Your task to perform on an android device: uninstall "Gmail" Image 0: 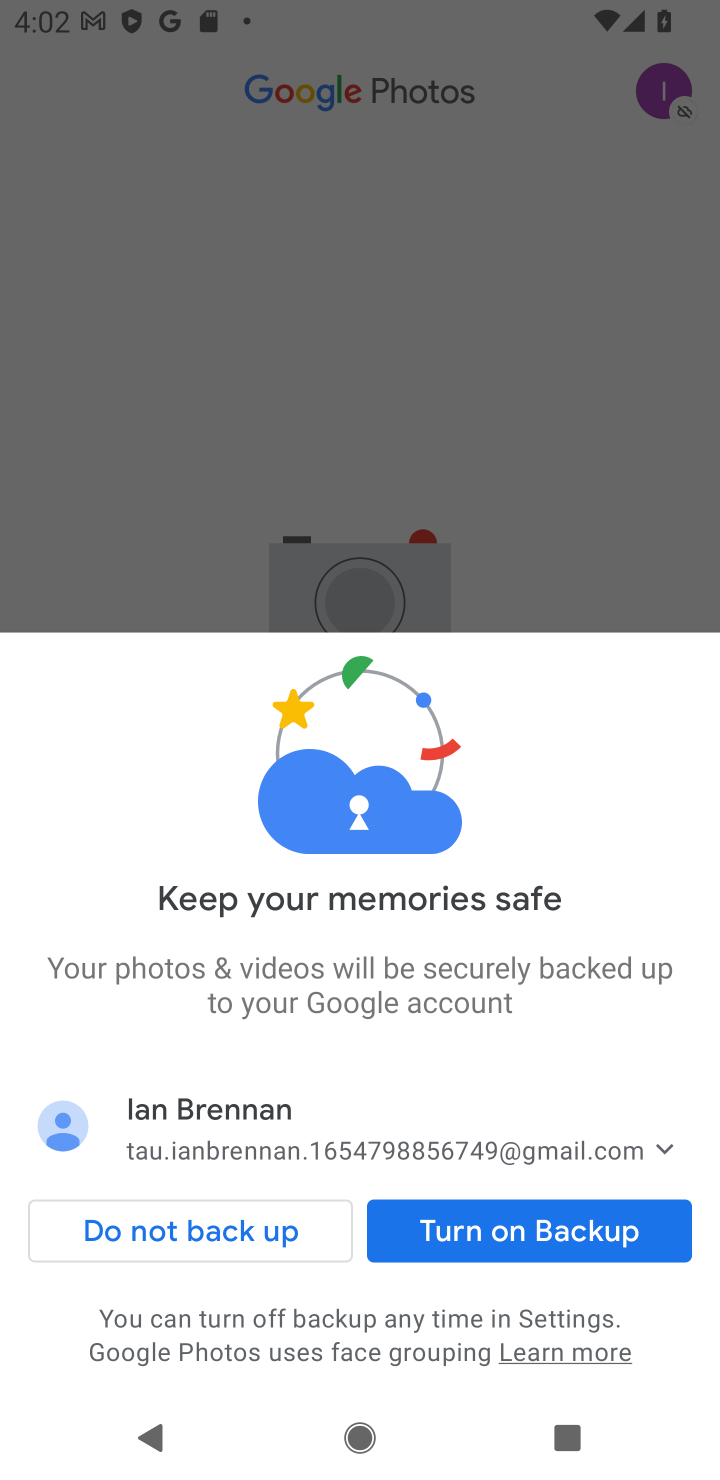
Step 0: press home button
Your task to perform on an android device: uninstall "Gmail" Image 1: 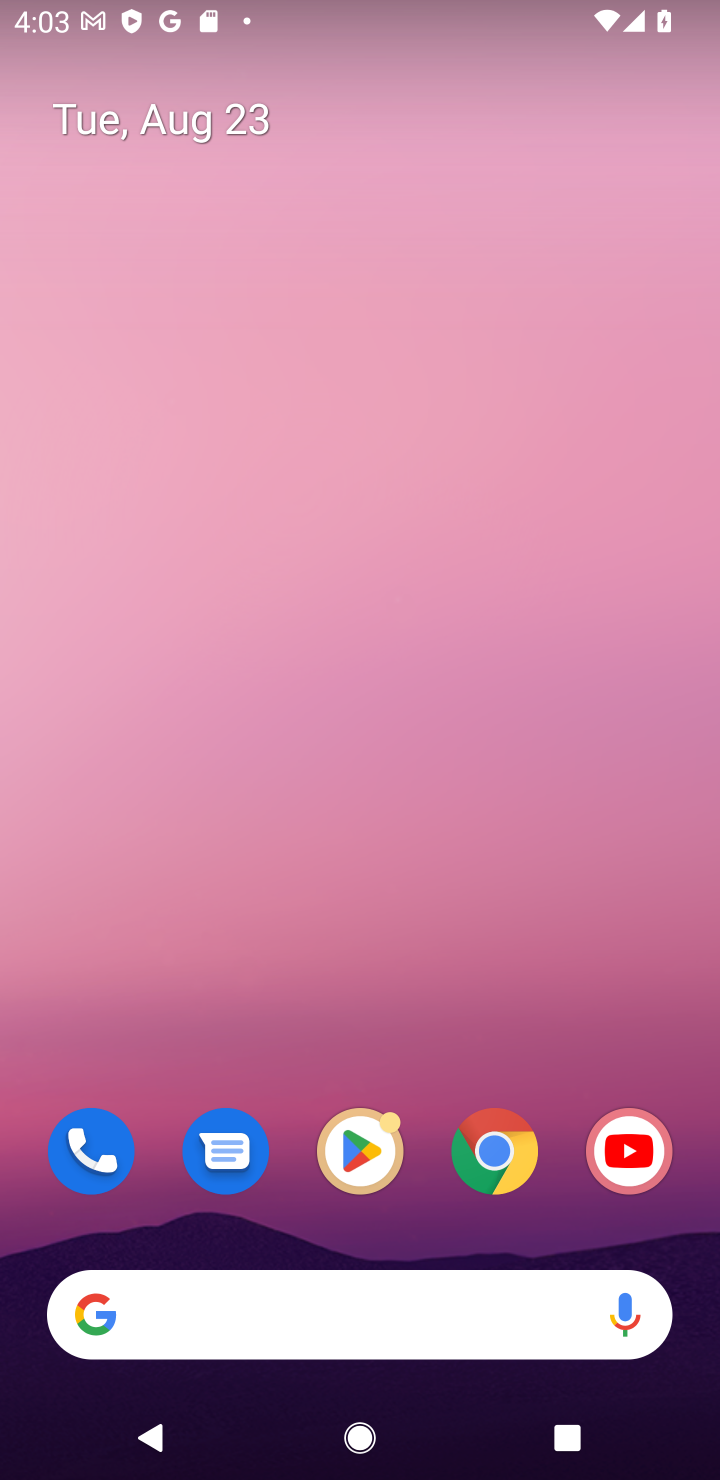
Step 1: click (355, 1146)
Your task to perform on an android device: uninstall "Gmail" Image 2: 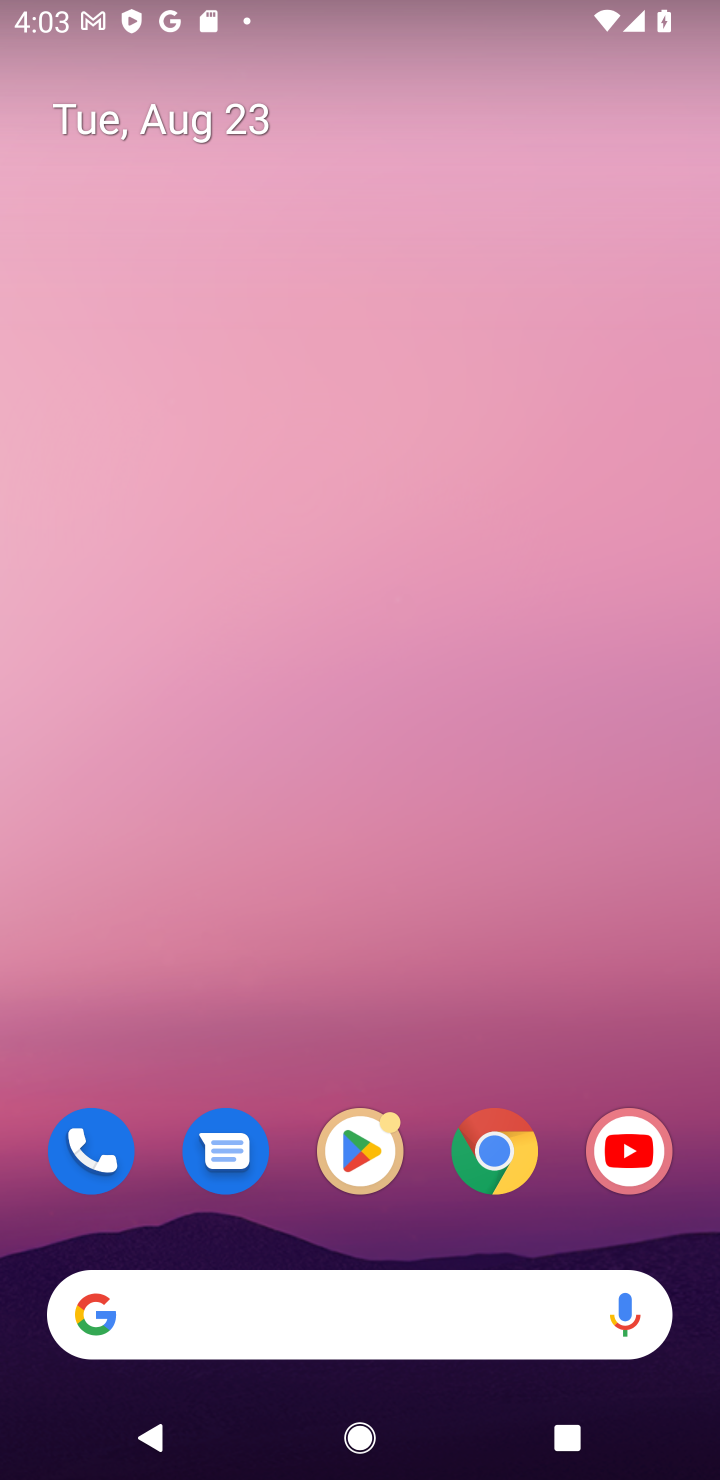
Step 2: click (354, 1141)
Your task to perform on an android device: uninstall "Gmail" Image 3: 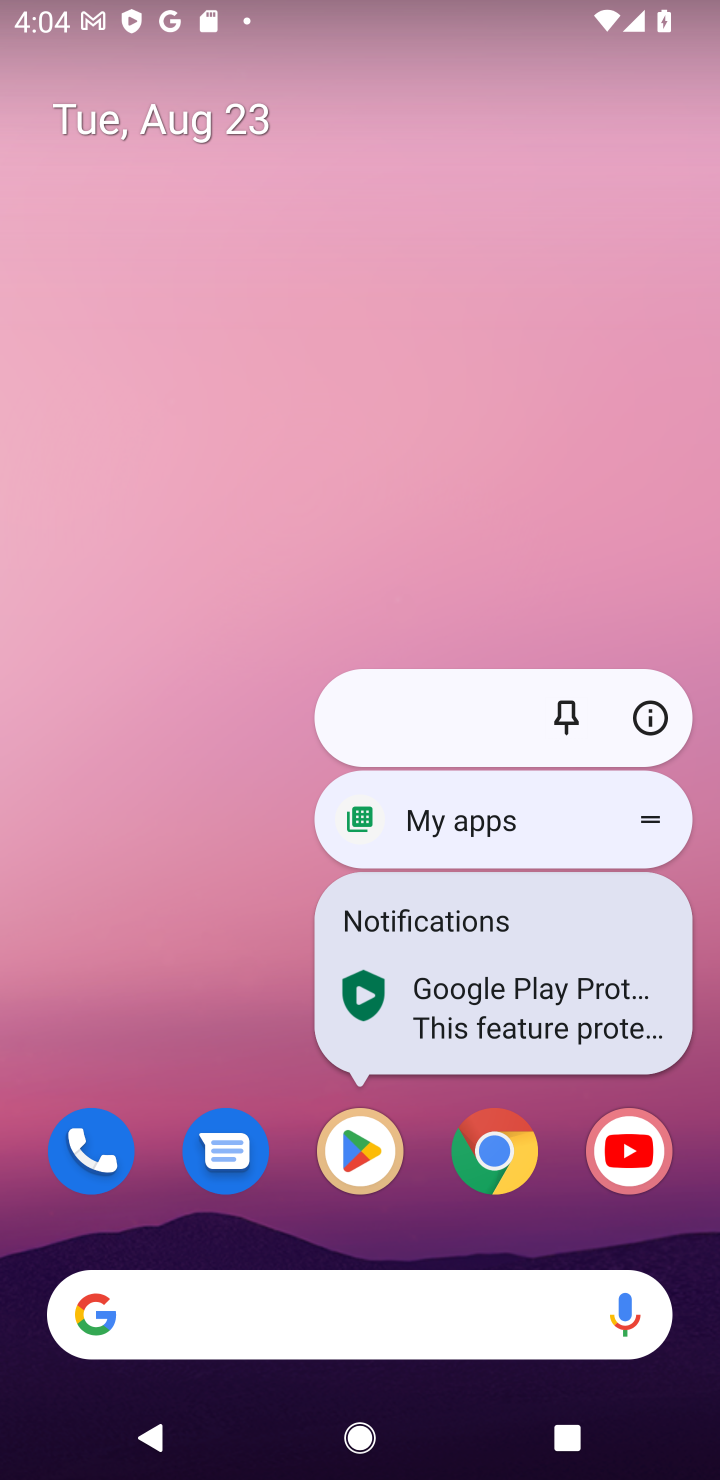
Step 3: click (355, 1136)
Your task to perform on an android device: uninstall "Gmail" Image 4: 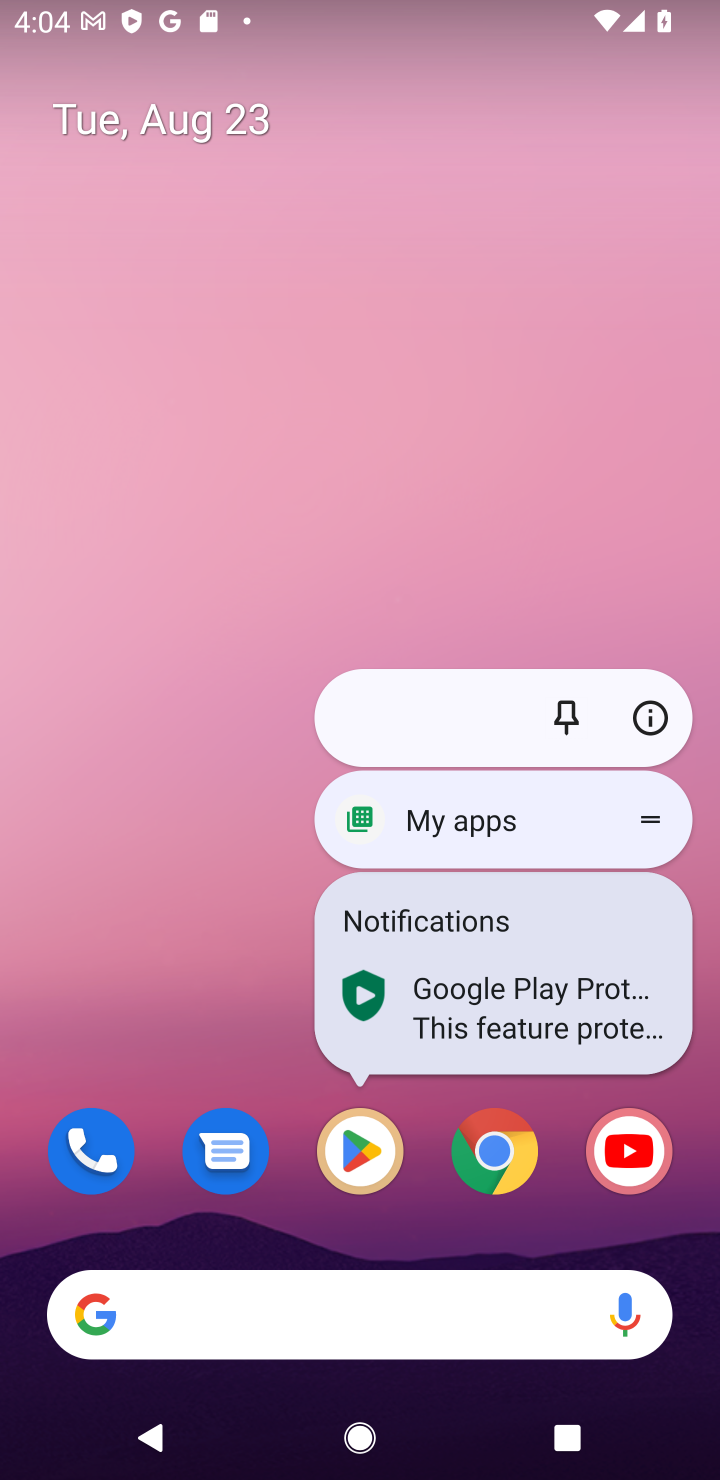
Step 4: click (348, 1149)
Your task to perform on an android device: uninstall "Gmail" Image 5: 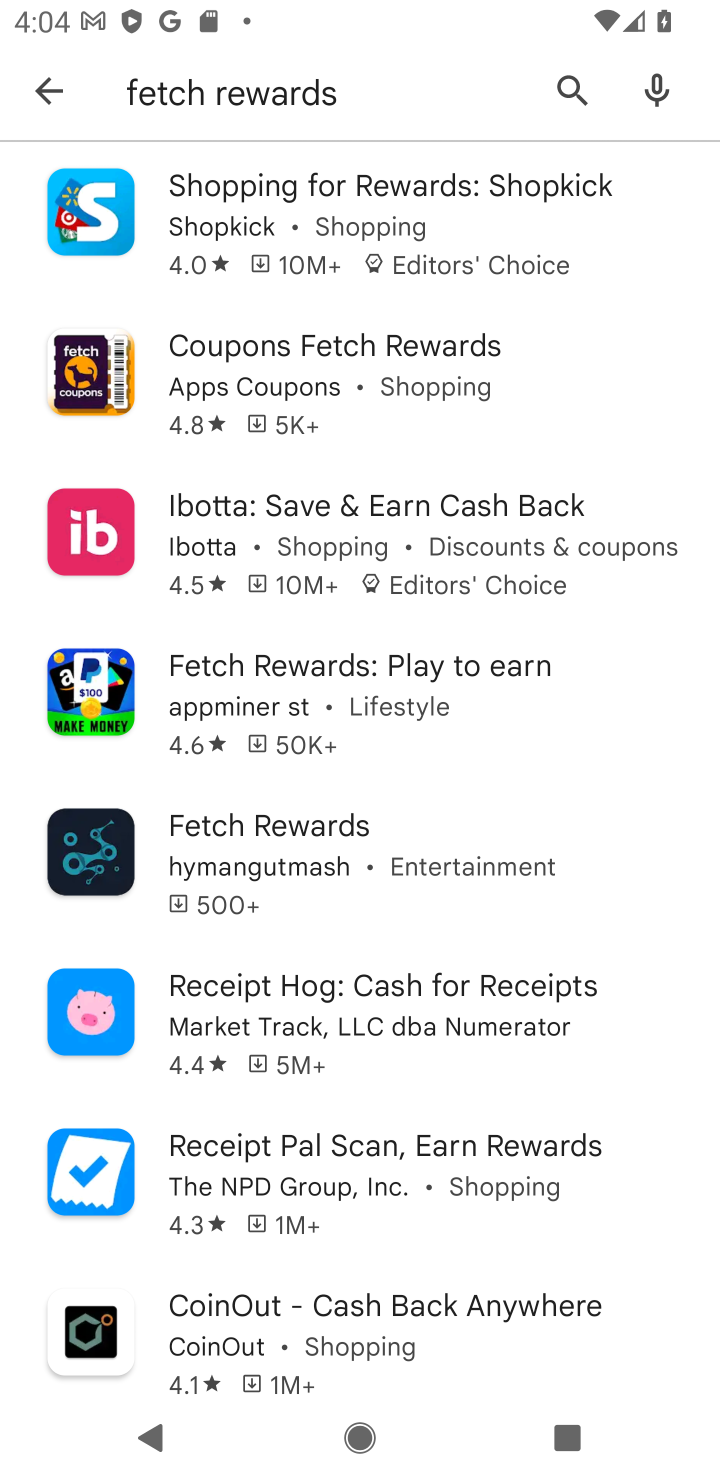
Step 5: click (558, 88)
Your task to perform on an android device: uninstall "Gmail" Image 6: 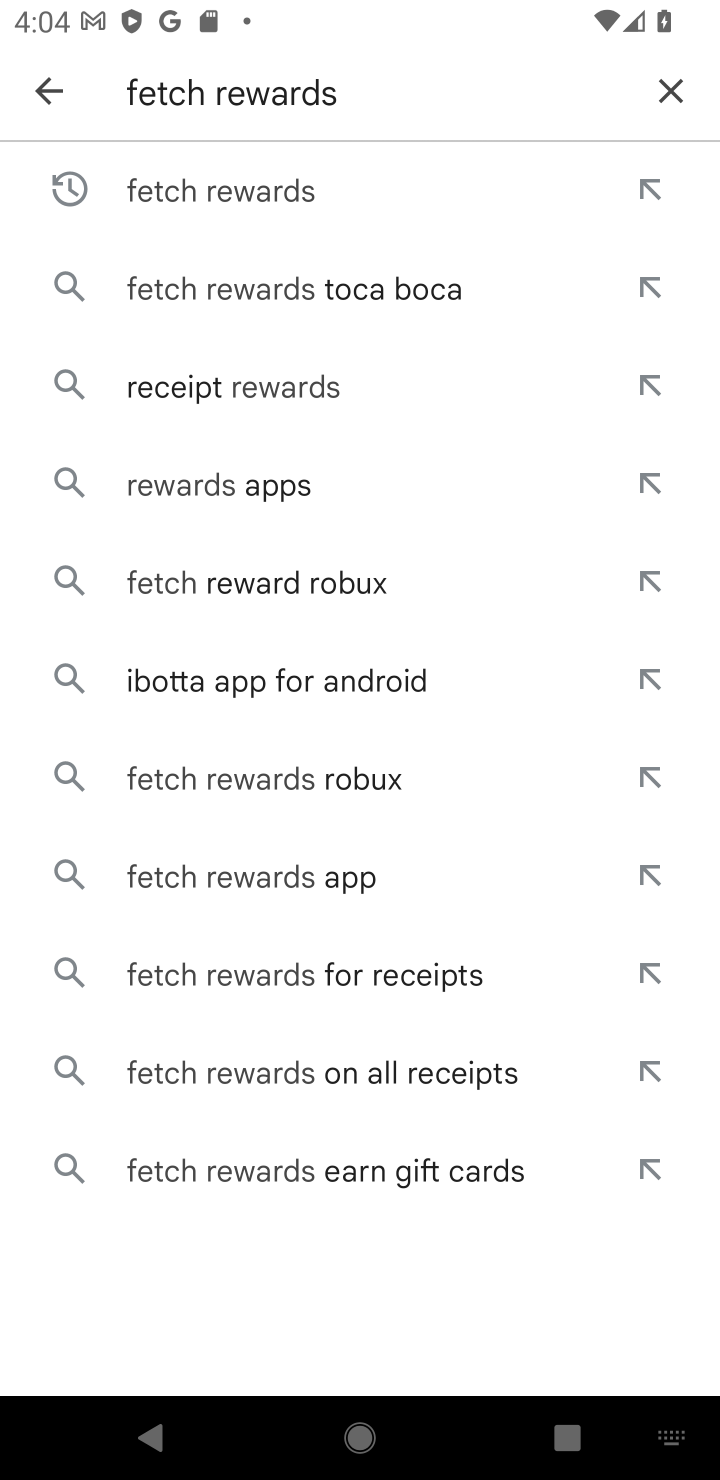
Step 6: click (670, 82)
Your task to perform on an android device: uninstall "Gmail" Image 7: 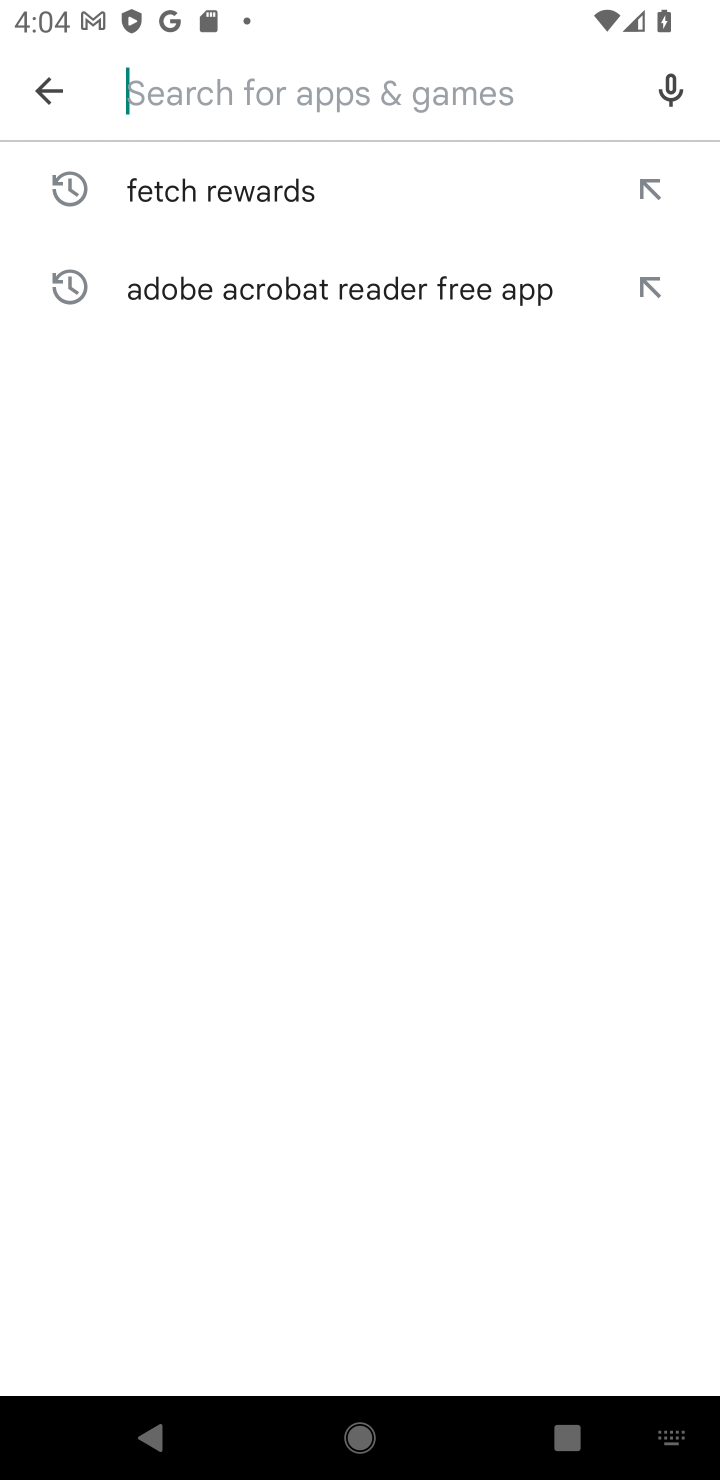
Step 7: type "Gmail"
Your task to perform on an android device: uninstall "Gmail" Image 8: 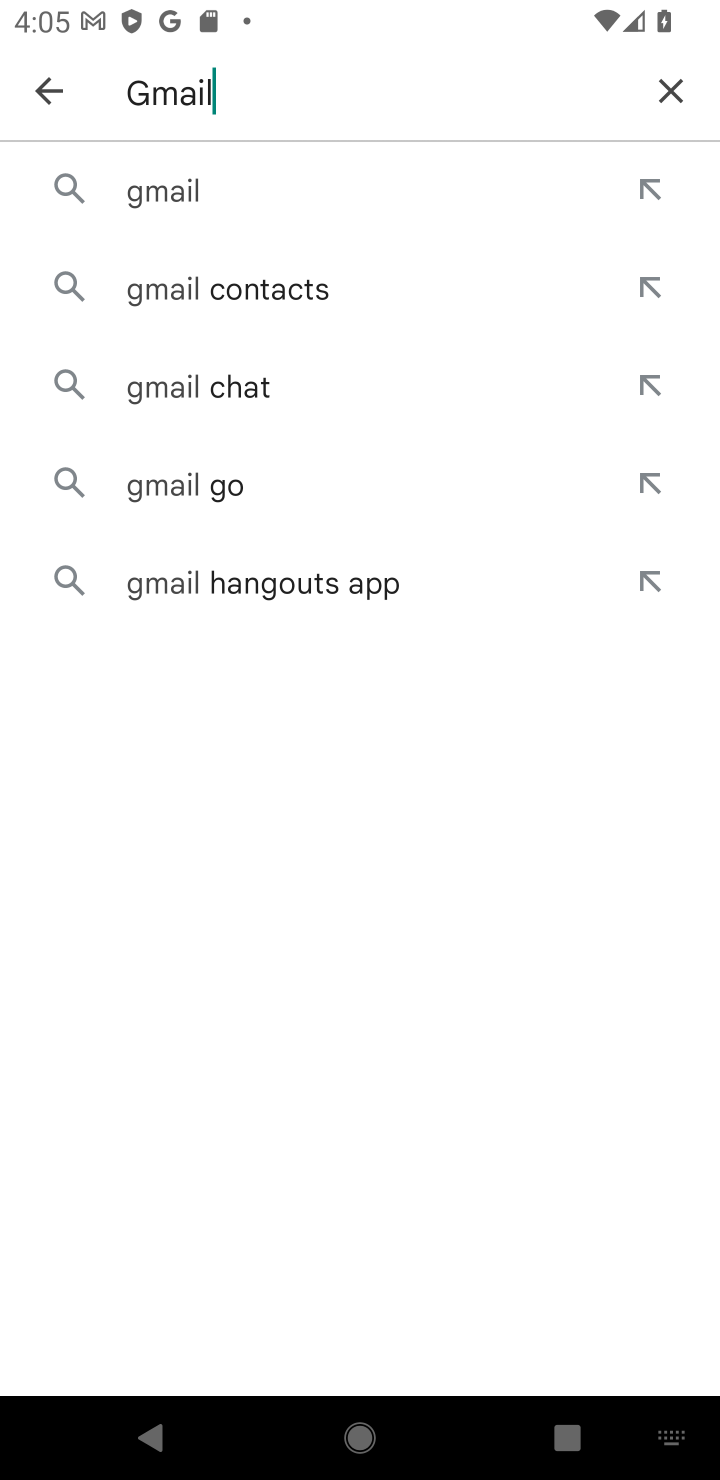
Step 8: click (208, 183)
Your task to perform on an android device: uninstall "Gmail" Image 9: 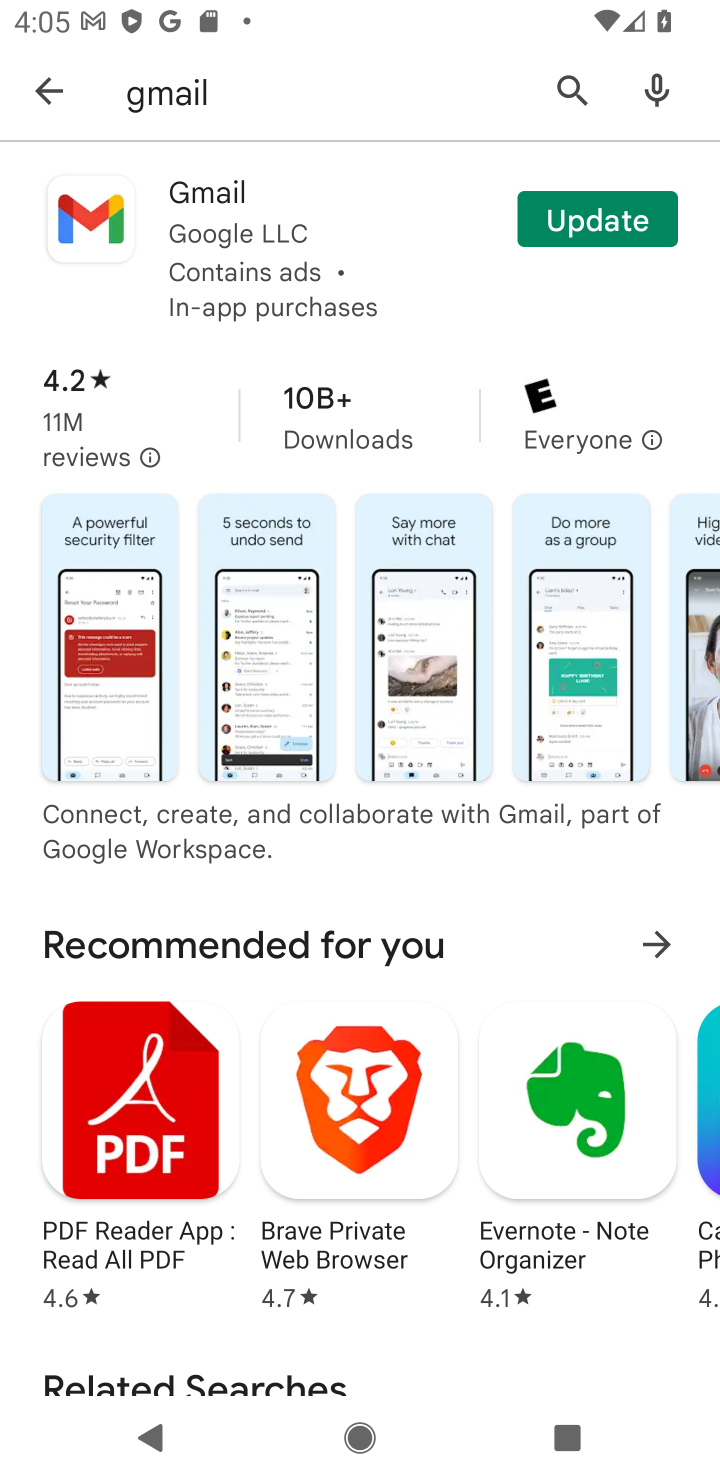
Step 9: task complete